Your task to perform on an android device: What's on my calendar tomorrow? Image 0: 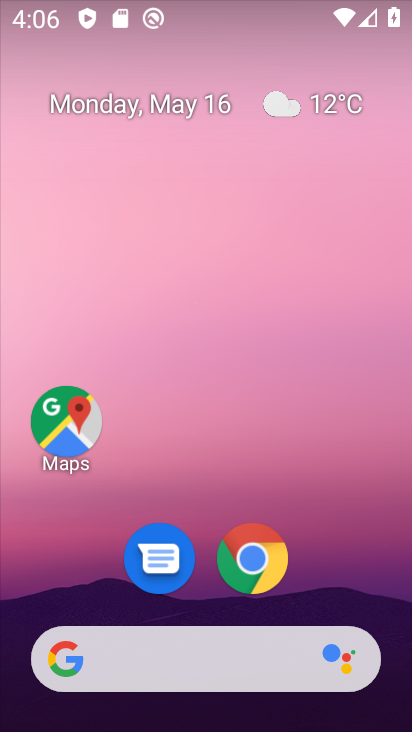
Step 0: click (260, 579)
Your task to perform on an android device: What's on my calendar tomorrow? Image 1: 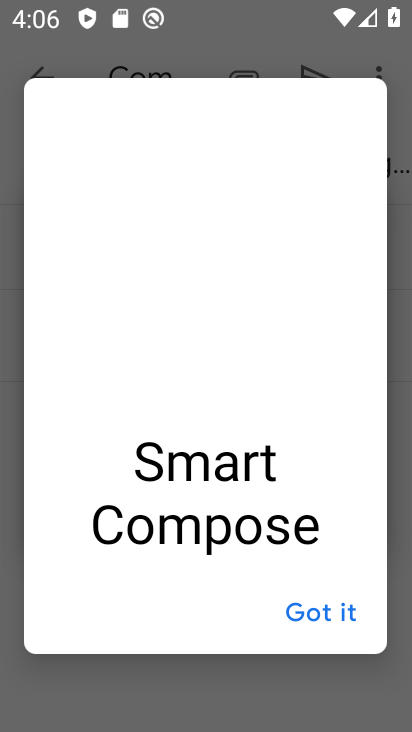
Step 1: press home button
Your task to perform on an android device: What's on my calendar tomorrow? Image 2: 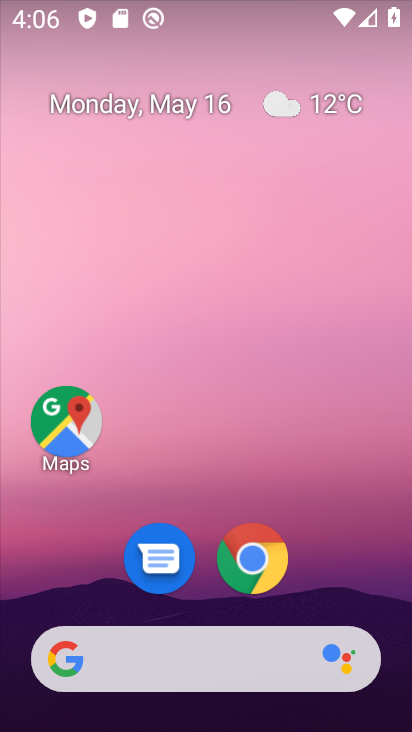
Step 2: drag from (369, 533) to (348, 185)
Your task to perform on an android device: What's on my calendar tomorrow? Image 3: 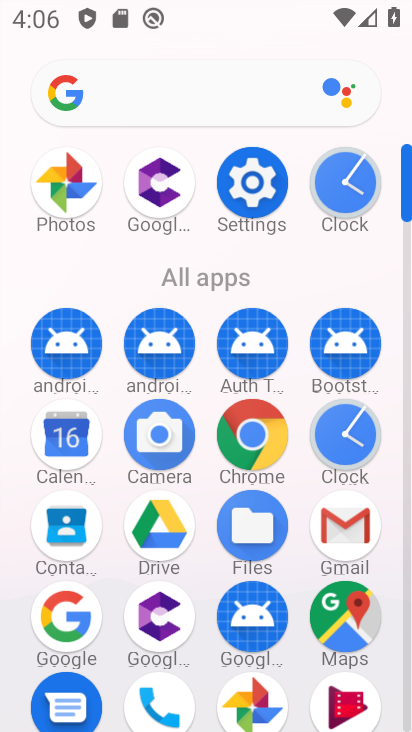
Step 3: click (68, 442)
Your task to perform on an android device: What's on my calendar tomorrow? Image 4: 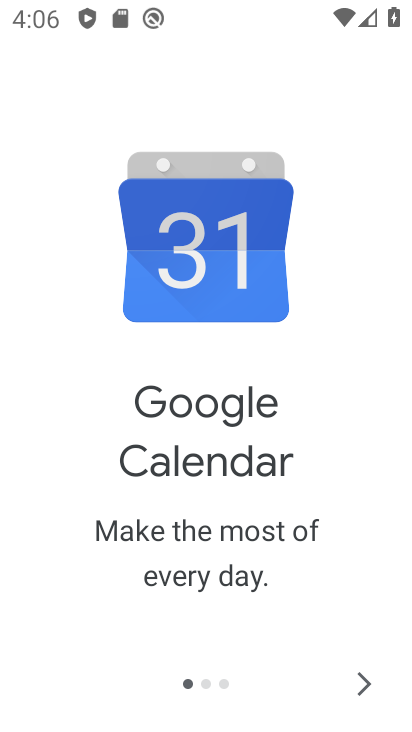
Step 4: click (363, 689)
Your task to perform on an android device: What's on my calendar tomorrow? Image 5: 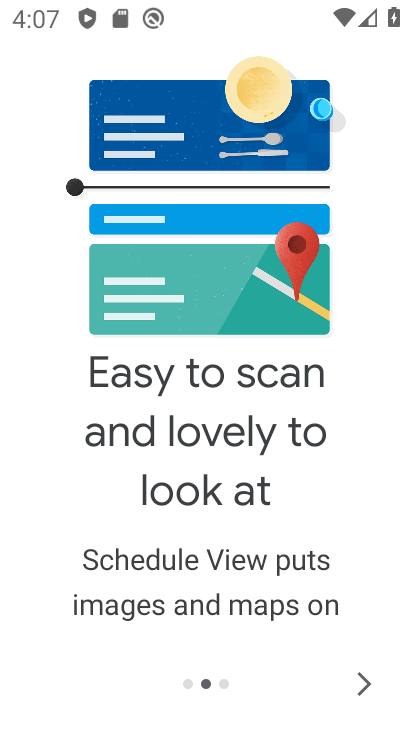
Step 5: click (356, 690)
Your task to perform on an android device: What's on my calendar tomorrow? Image 6: 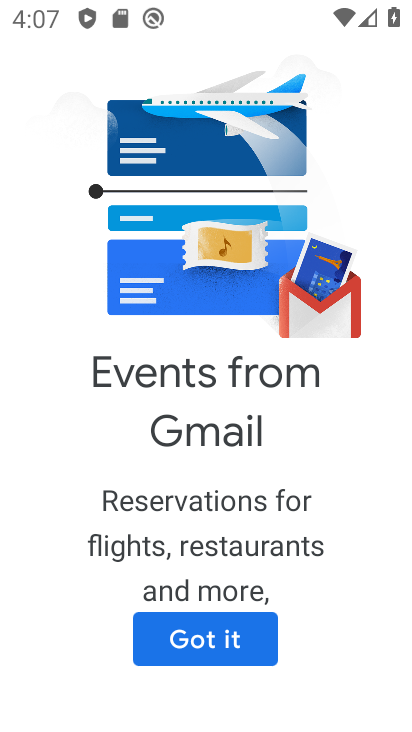
Step 6: click (245, 660)
Your task to perform on an android device: What's on my calendar tomorrow? Image 7: 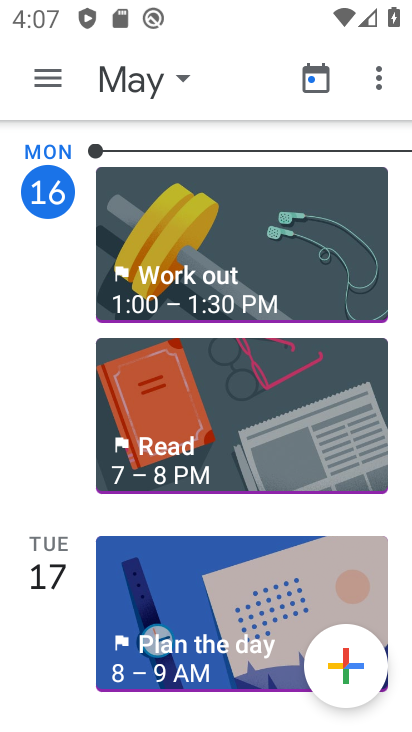
Step 7: click (146, 86)
Your task to perform on an android device: What's on my calendar tomorrow? Image 8: 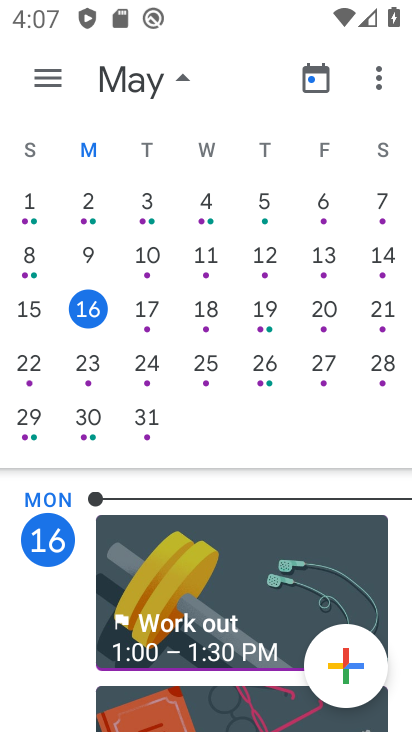
Step 8: click (153, 315)
Your task to perform on an android device: What's on my calendar tomorrow? Image 9: 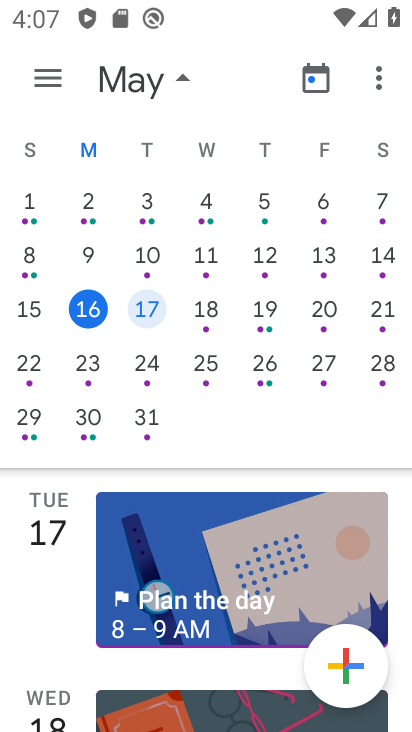
Step 9: task complete